Your task to perform on an android device: Is it going to rain today? Image 0: 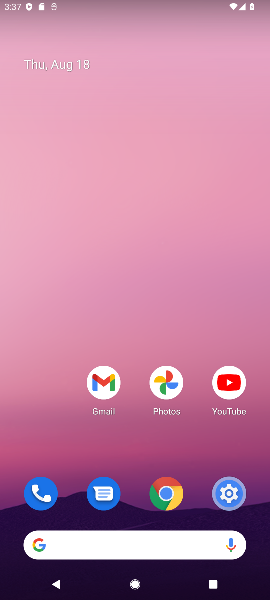
Step 0: drag from (124, 446) to (154, 105)
Your task to perform on an android device: Is it going to rain today? Image 1: 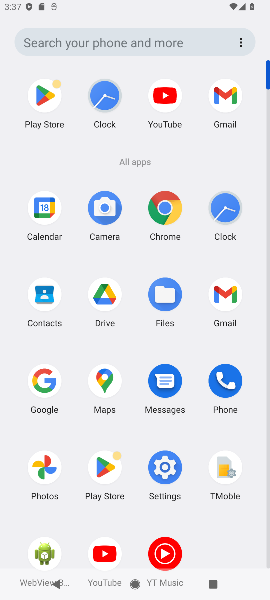
Step 1: click (170, 210)
Your task to perform on an android device: Is it going to rain today? Image 2: 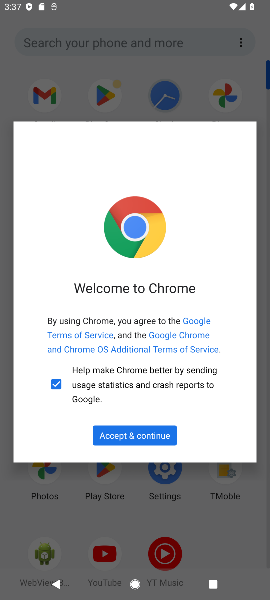
Step 2: click (140, 433)
Your task to perform on an android device: Is it going to rain today? Image 3: 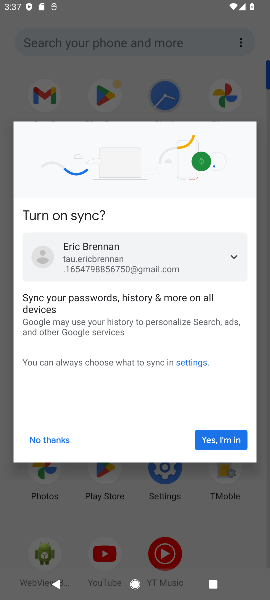
Step 3: click (229, 440)
Your task to perform on an android device: Is it going to rain today? Image 4: 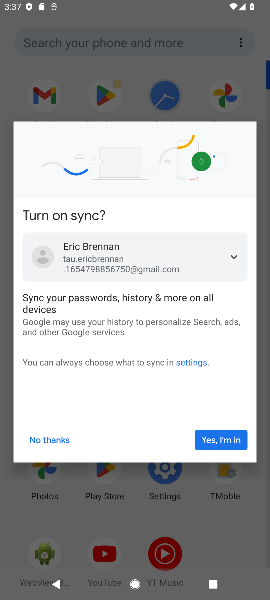
Step 4: click (229, 440)
Your task to perform on an android device: Is it going to rain today? Image 5: 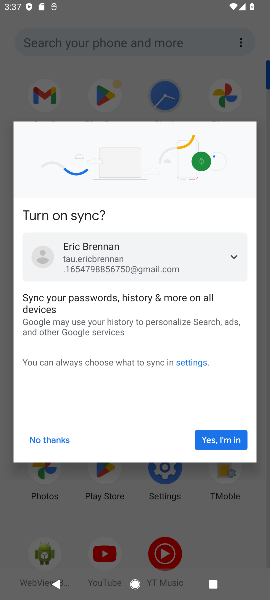
Step 5: click (229, 440)
Your task to perform on an android device: Is it going to rain today? Image 6: 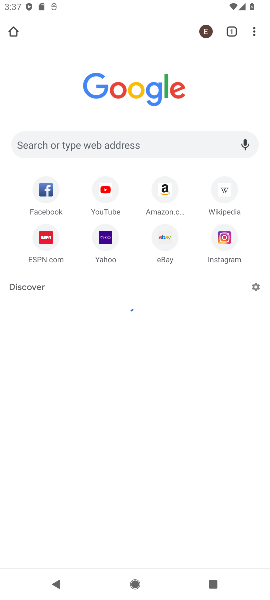
Step 6: click (85, 145)
Your task to perform on an android device: Is it going to rain today? Image 7: 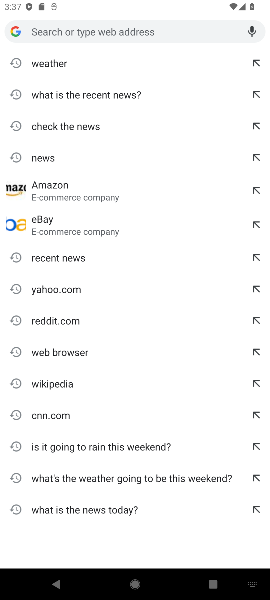
Step 7: type "Is it going to rain today?"
Your task to perform on an android device: Is it going to rain today? Image 8: 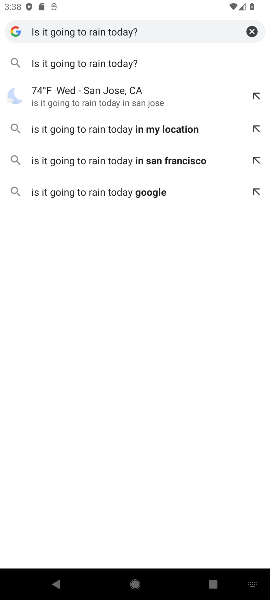
Step 8: click (92, 58)
Your task to perform on an android device: Is it going to rain today? Image 9: 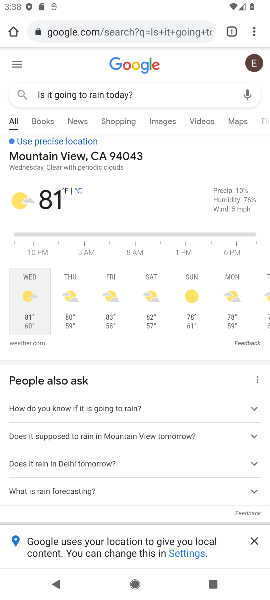
Step 9: task complete